Your task to perform on an android device: Open battery settings Image 0: 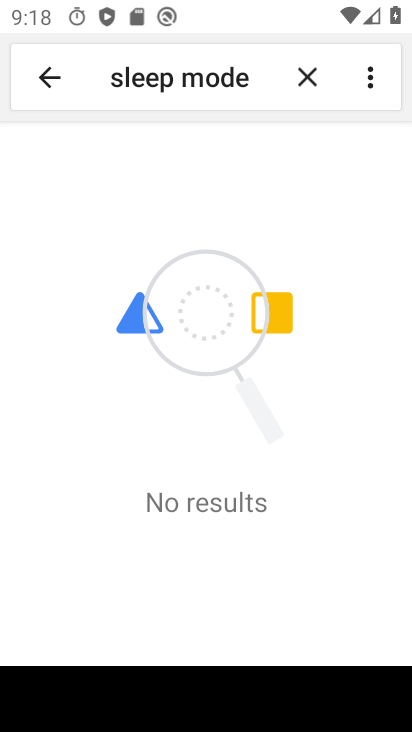
Step 0: click (50, 76)
Your task to perform on an android device: Open battery settings Image 1: 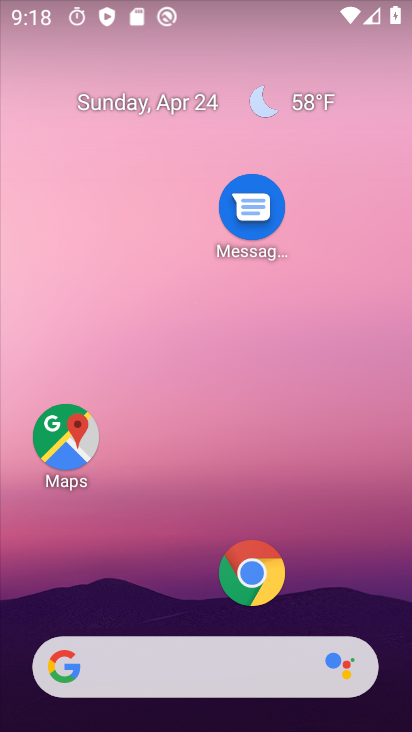
Step 1: click (161, 12)
Your task to perform on an android device: Open battery settings Image 2: 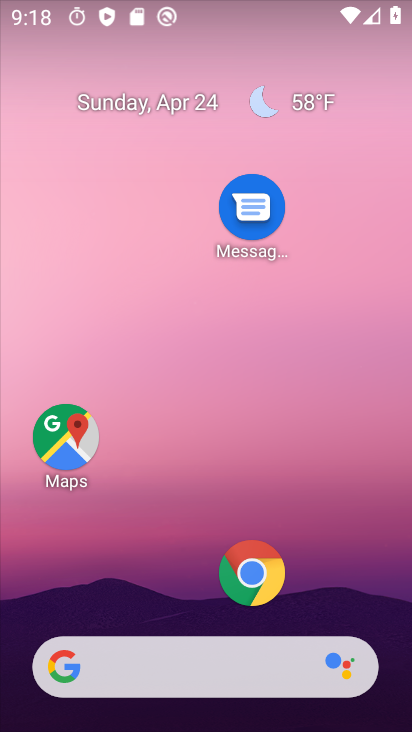
Step 2: drag from (178, 602) to (225, 8)
Your task to perform on an android device: Open battery settings Image 3: 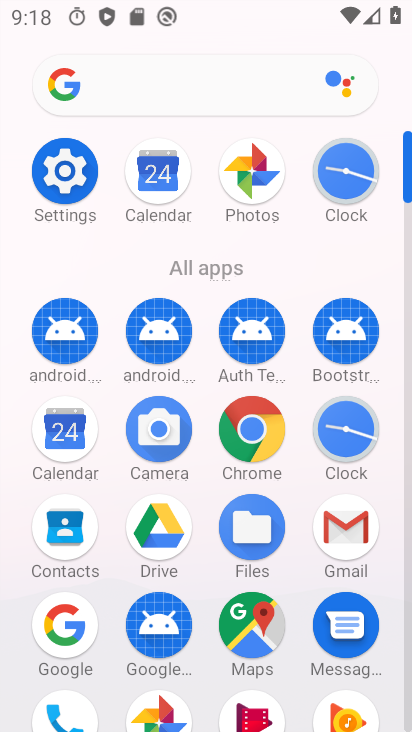
Step 3: click (69, 179)
Your task to perform on an android device: Open battery settings Image 4: 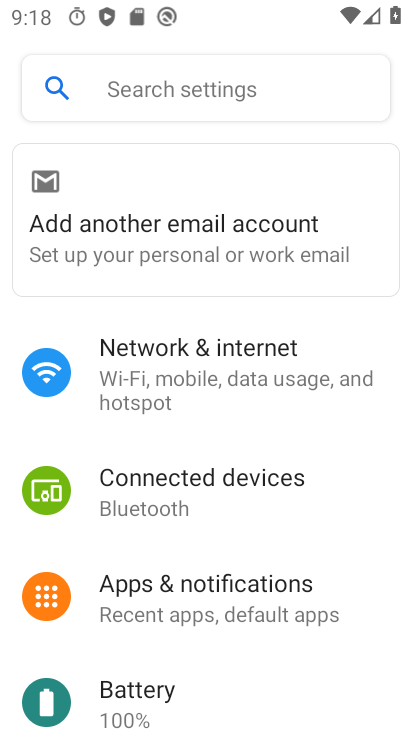
Step 4: drag from (190, 612) to (198, 373)
Your task to perform on an android device: Open battery settings Image 5: 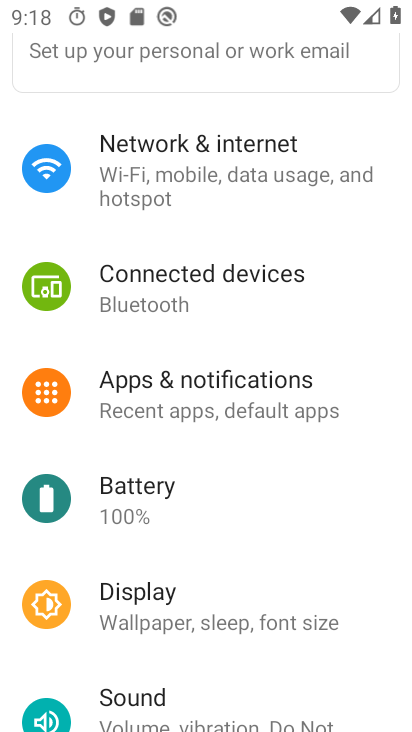
Step 5: click (149, 506)
Your task to perform on an android device: Open battery settings Image 6: 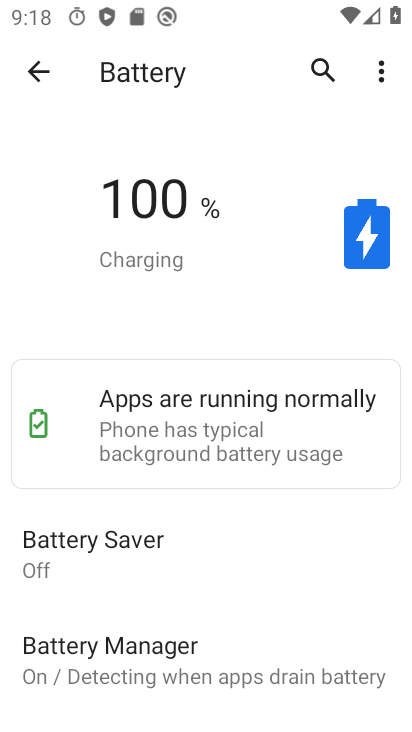
Step 6: task complete